Your task to perform on an android device: make emails show in primary in the gmail app Image 0: 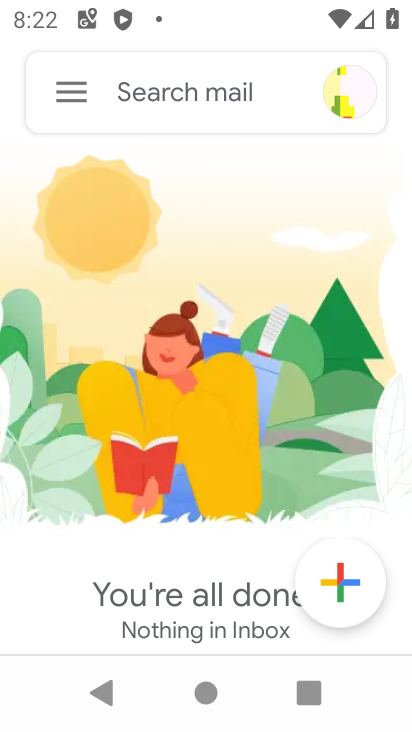
Step 0: click (76, 101)
Your task to perform on an android device: make emails show in primary in the gmail app Image 1: 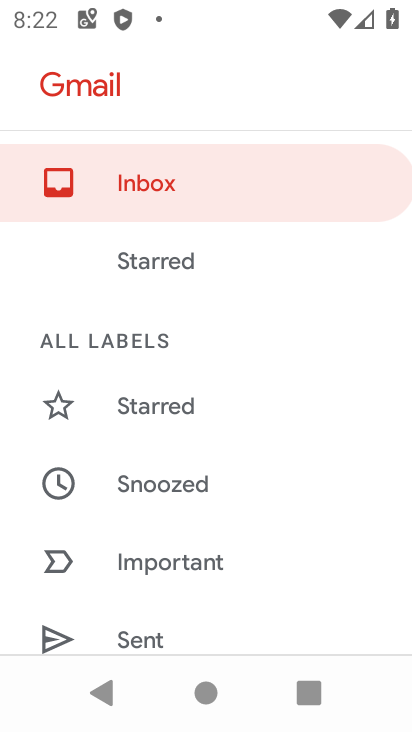
Step 1: drag from (286, 597) to (240, 1)
Your task to perform on an android device: make emails show in primary in the gmail app Image 2: 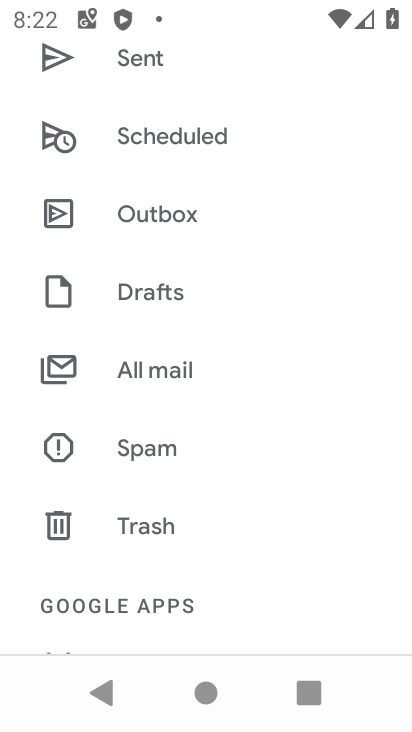
Step 2: drag from (213, 543) to (194, 118)
Your task to perform on an android device: make emails show in primary in the gmail app Image 3: 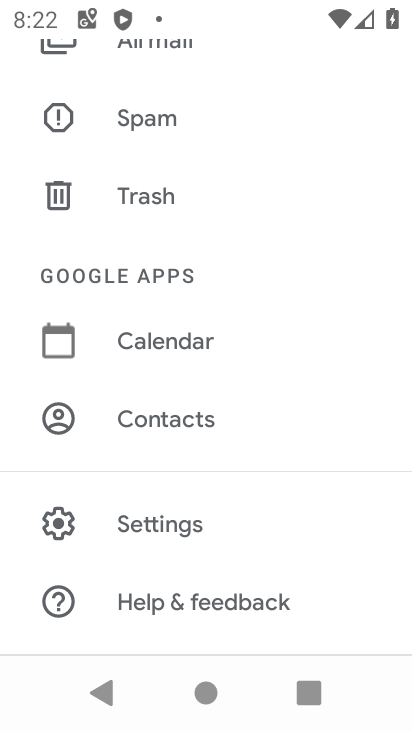
Step 3: click (159, 533)
Your task to perform on an android device: make emails show in primary in the gmail app Image 4: 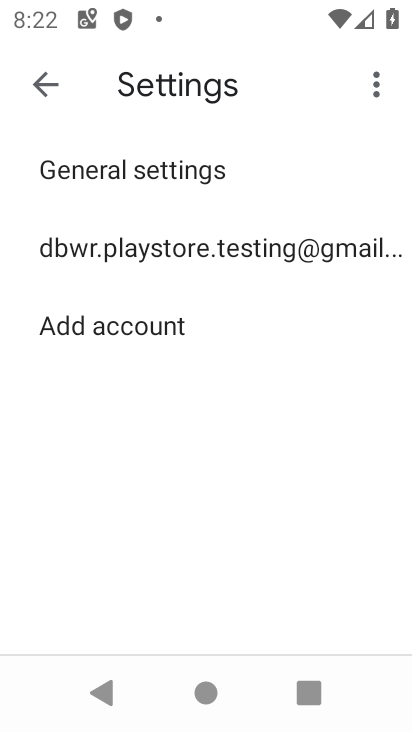
Step 4: click (157, 263)
Your task to perform on an android device: make emails show in primary in the gmail app Image 5: 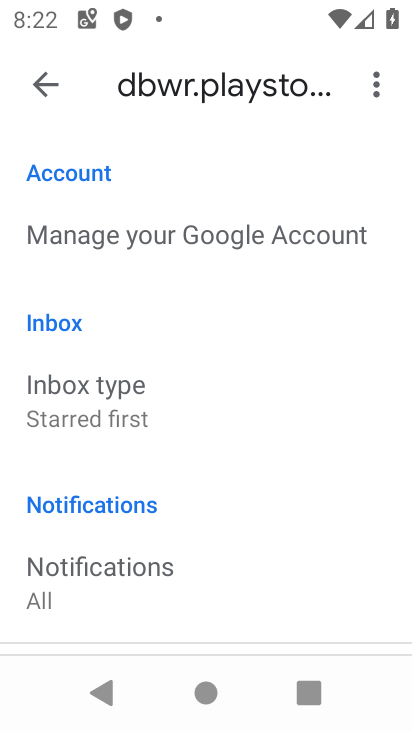
Step 5: task complete